Your task to perform on an android device: turn on notifications settings in the gmail app Image 0: 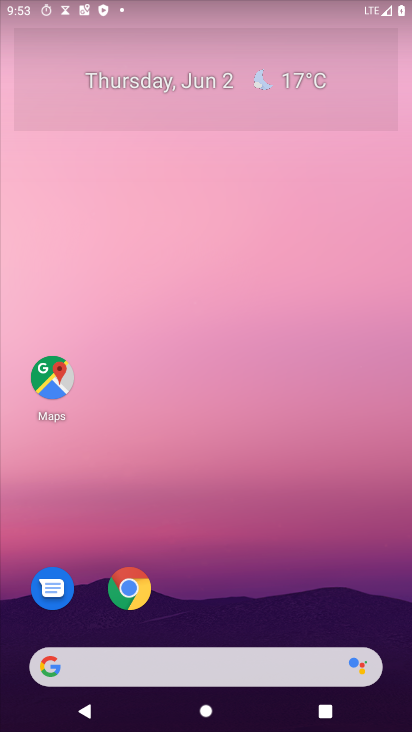
Step 0: drag from (250, 614) to (321, 162)
Your task to perform on an android device: turn on notifications settings in the gmail app Image 1: 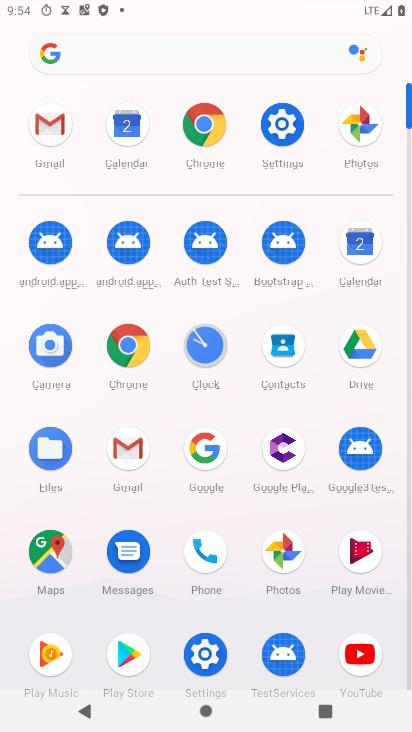
Step 1: click (58, 129)
Your task to perform on an android device: turn on notifications settings in the gmail app Image 2: 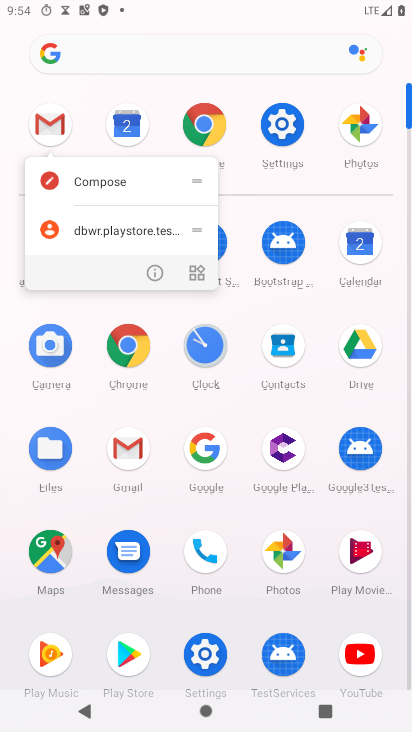
Step 2: click (157, 275)
Your task to perform on an android device: turn on notifications settings in the gmail app Image 3: 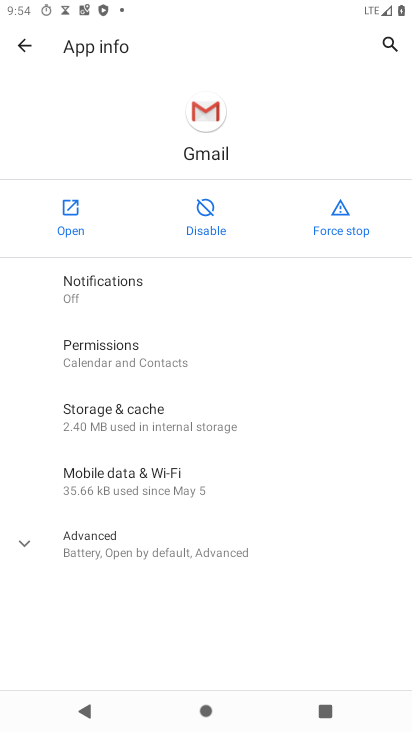
Step 3: click (117, 287)
Your task to perform on an android device: turn on notifications settings in the gmail app Image 4: 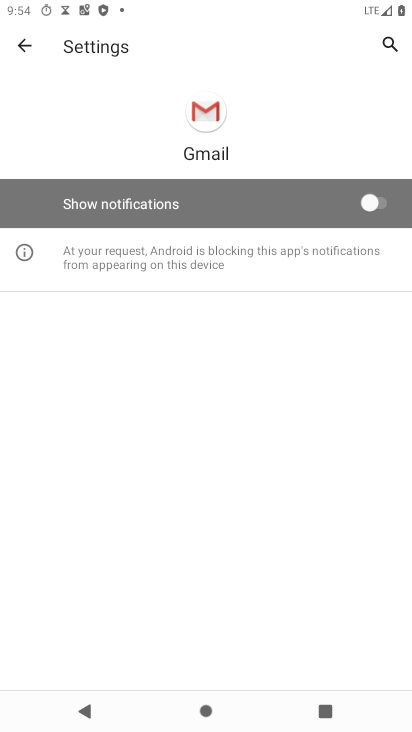
Step 4: click (363, 201)
Your task to perform on an android device: turn on notifications settings in the gmail app Image 5: 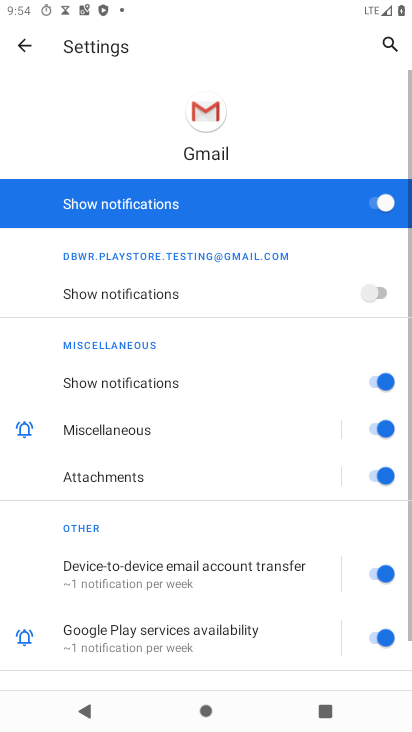
Step 5: task complete